Your task to perform on an android device: Search for Mexican restaurants on Maps Image 0: 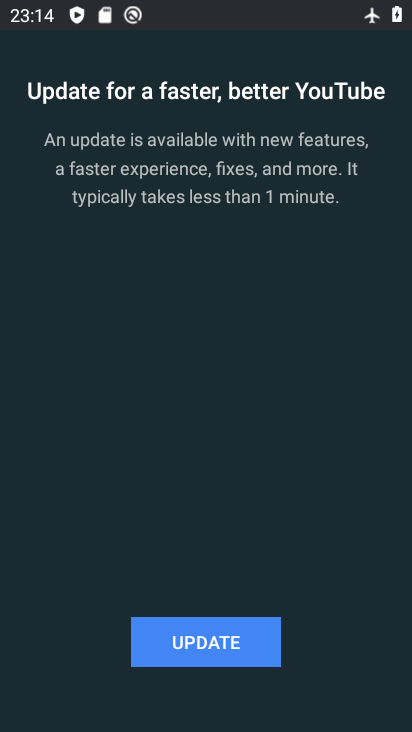
Step 0: click (178, 655)
Your task to perform on an android device: Search for Mexican restaurants on Maps Image 1: 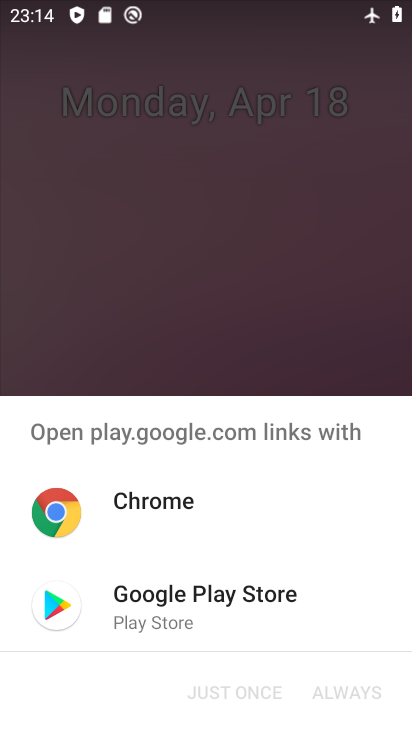
Step 1: press home button
Your task to perform on an android device: Search for Mexican restaurants on Maps Image 2: 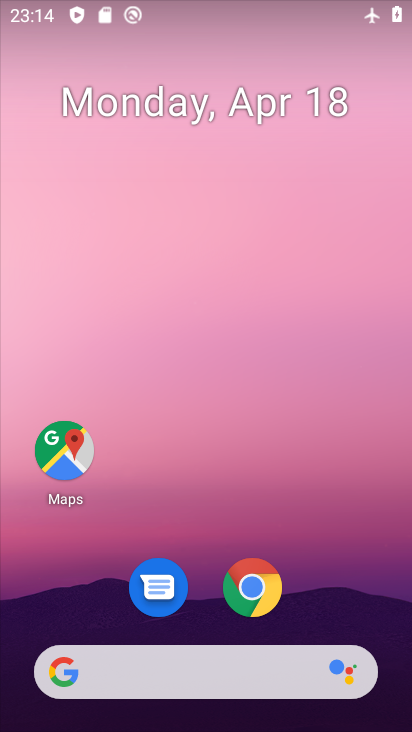
Step 2: click (57, 447)
Your task to perform on an android device: Search for Mexican restaurants on Maps Image 3: 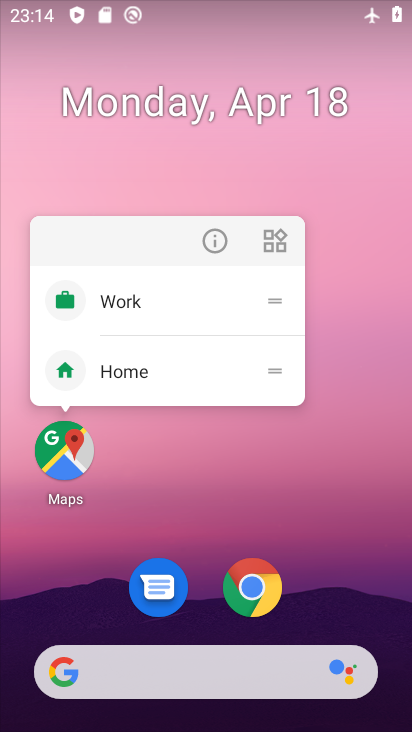
Step 3: click (24, 464)
Your task to perform on an android device: Search for Mexican restaurants on Maps Image 4: 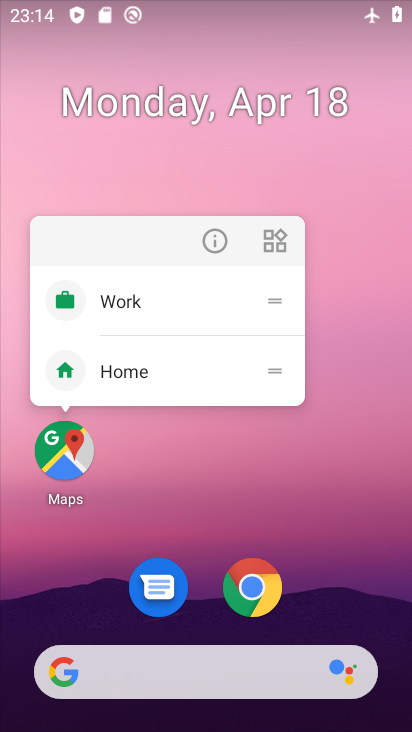
Step 4: click (73, 475)
Your task to perform on an android device: Search for Mexican restaurants on Maps Image 5: 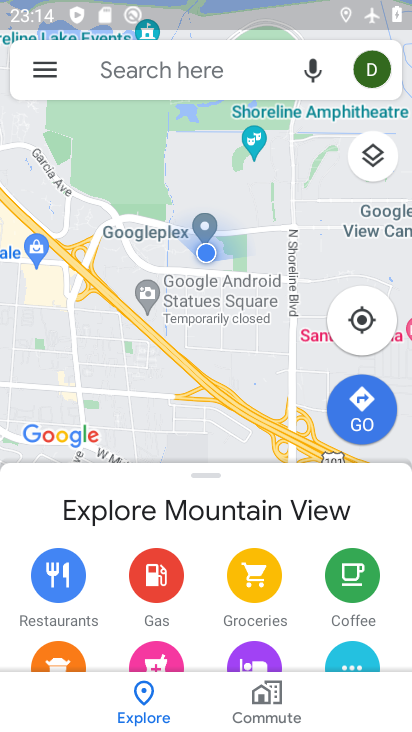
Step 5: click (167, 73)
Your task to perform on an android device: Search for Mexican restaurants on Maps Image 6: 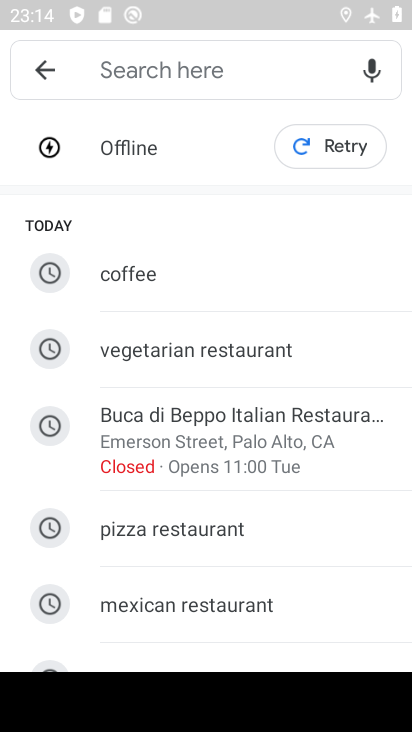
Step 6: click (166, 610)
Your task to perform on an android device: Search for Mexican restaurants on Maps Image 7: 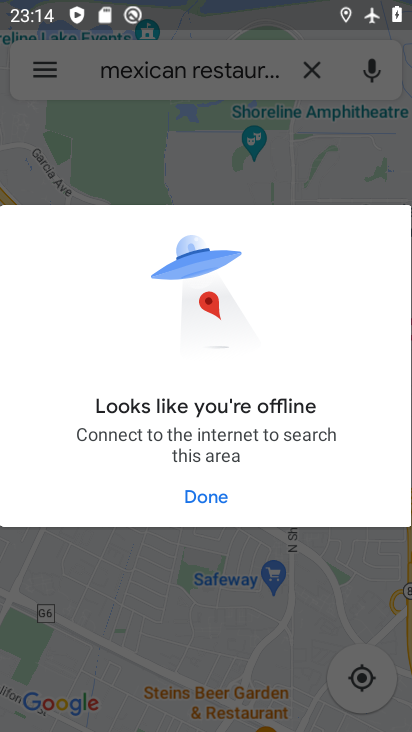
Step 7: task complete